Your task to perform on an android device: turn off smart reply in the gmail app Image 0: 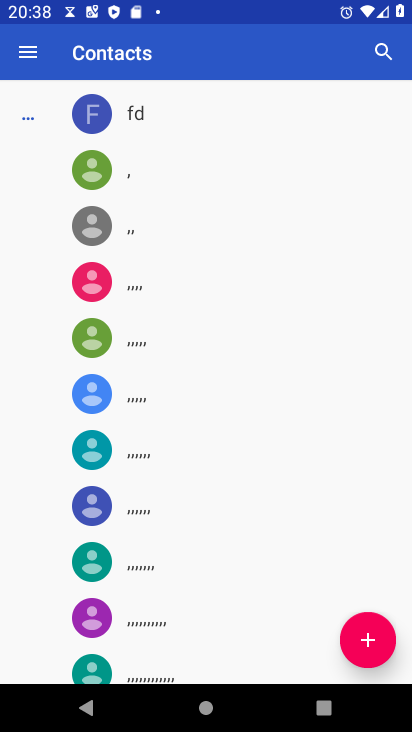
Step 0: press home button
Your task to perform on an android device: turn off smart reply in the gmail app Image 1: 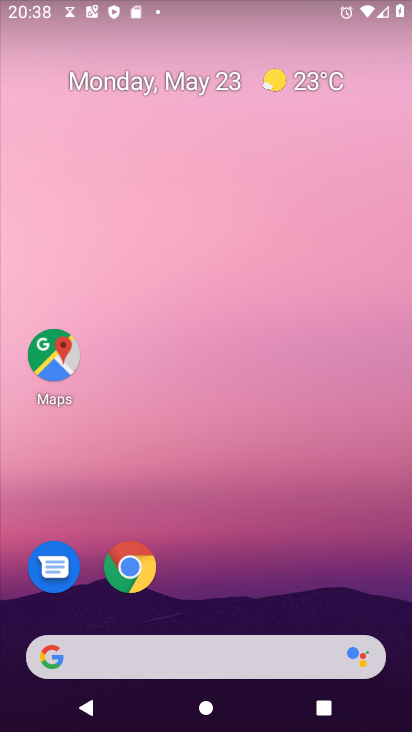
Step 1: drag from (227, 580) to (265, 222)
Your task to perform on an android device: turn off smart reply in the gmail app Image 2: 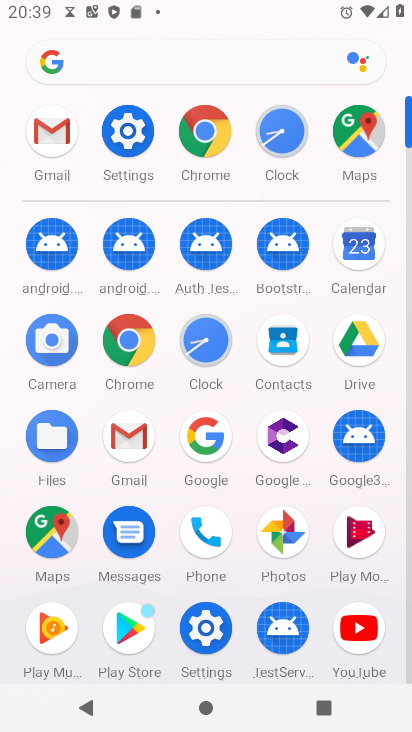
Step 2: click (130, 431)
Your task to perform on an android device: turn off smart reply in the gmail app Image 3: 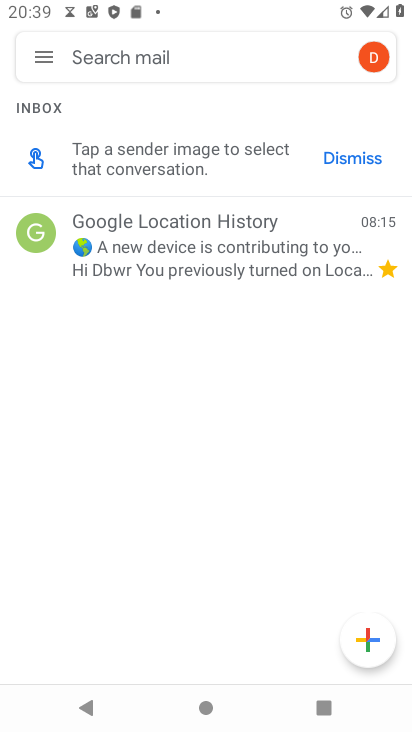
Step 3: click (41, 61)
Your task to perform on an android device: turn off smart reply in the gmail app Image 4: 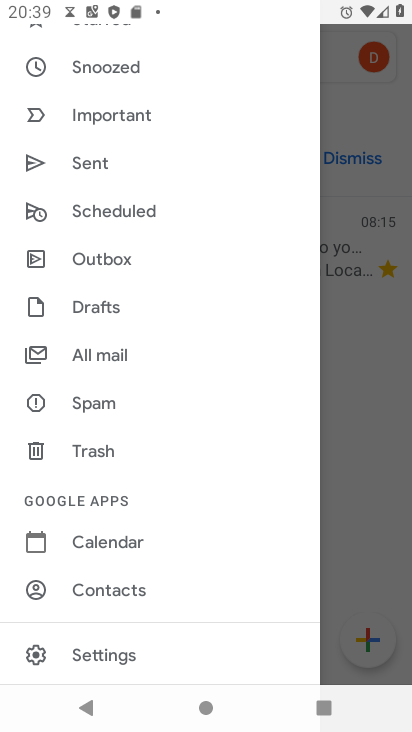
Step 4: click (138, 643)
Your task to perform on an android device: turn off smart reply in the gmail app Image 5: 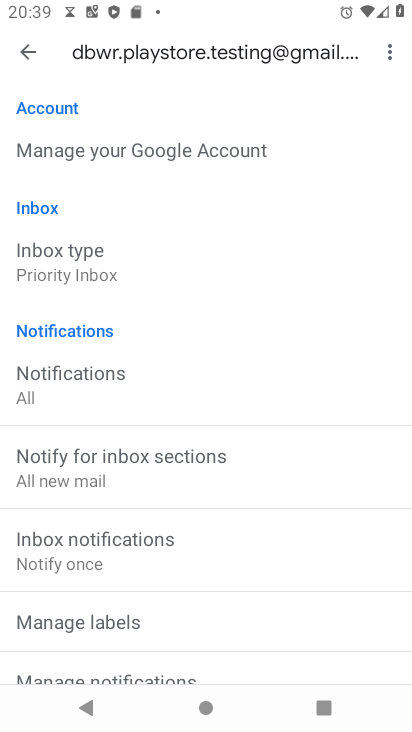
Step 5: drag from (164, 617) to (217, 217)
Your task to perform on an android device: turn off smart reply in the gmail app Image 6: 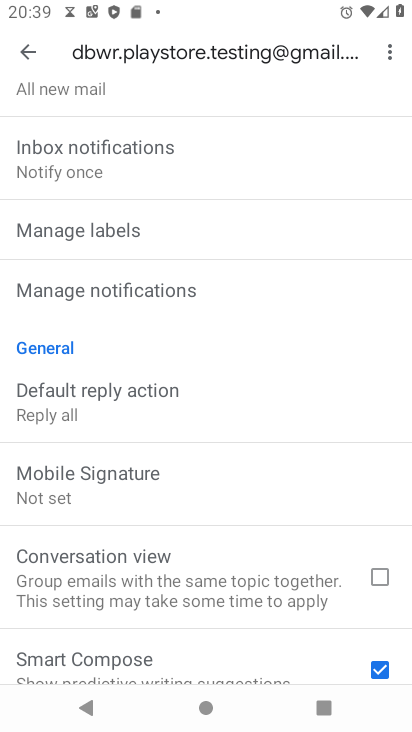
Step 6: drag from (210, 617) to (257, 279)
Your task to perform on an android device: turn off smart reply in the gmail app Image 7: 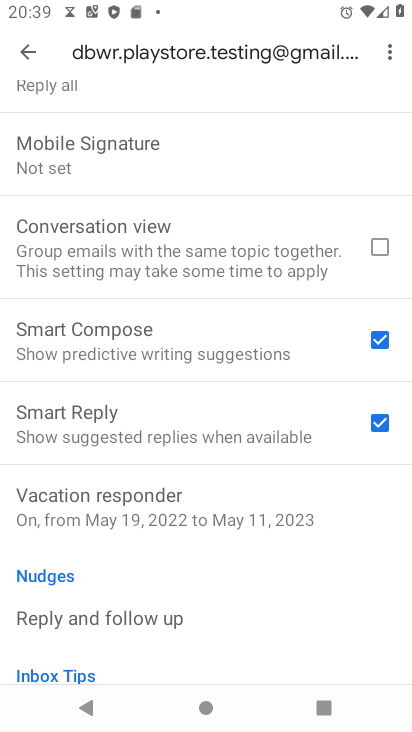
Step 7: click (382, 417)
Your task to perform on an android device: turn off smart reply in the gmail app Image 8: 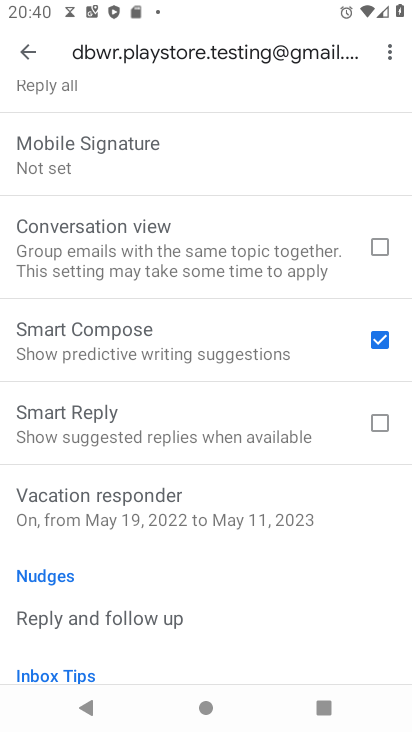
Step 8: task complete